Your task to perform on an android device: Clear the shopping cart on walmart.com. Add acer nitro to the cart on walmart.com, then select checkout. Image 0: 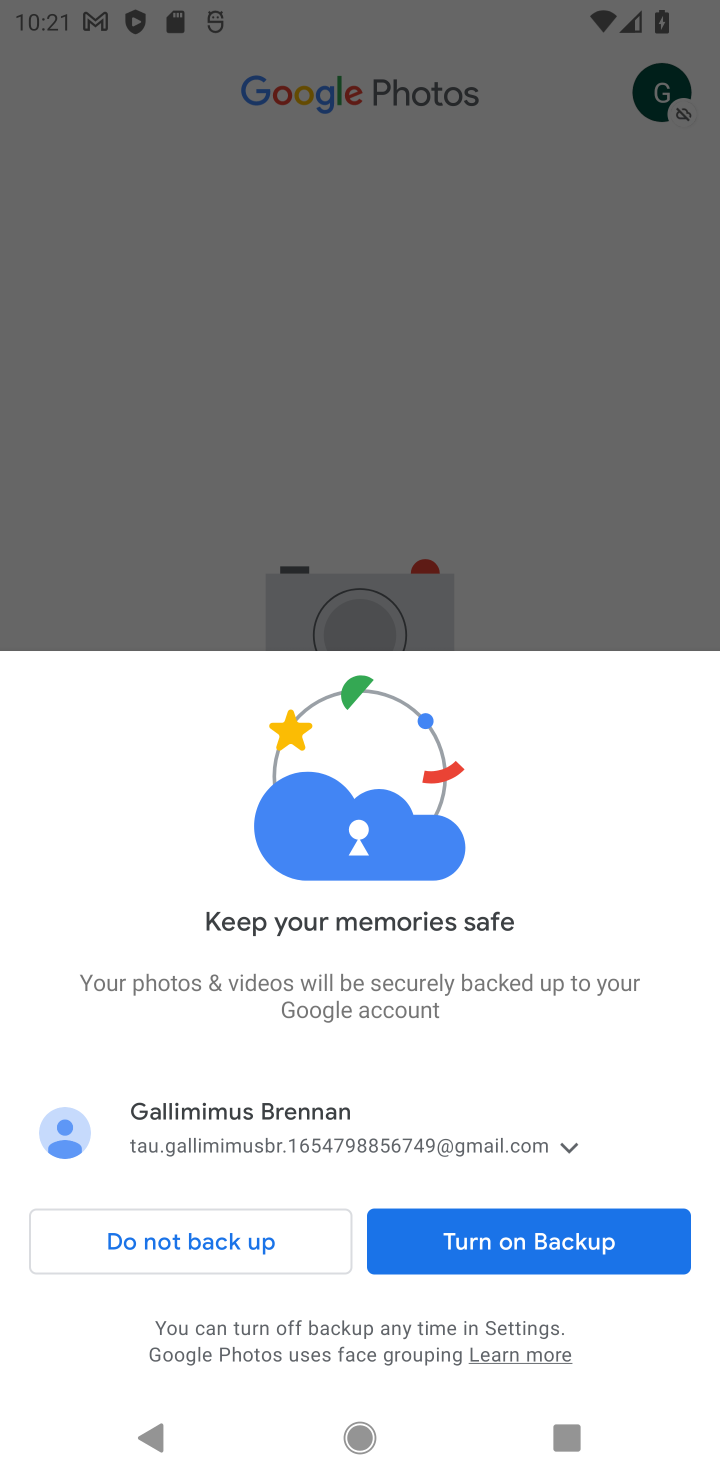
Step 0: press home button
Your task to perform on an android device: Clear the shopping cart on walmart.com. Add acer nitro to the cart on walmart.com, then select checkout. Image 1: 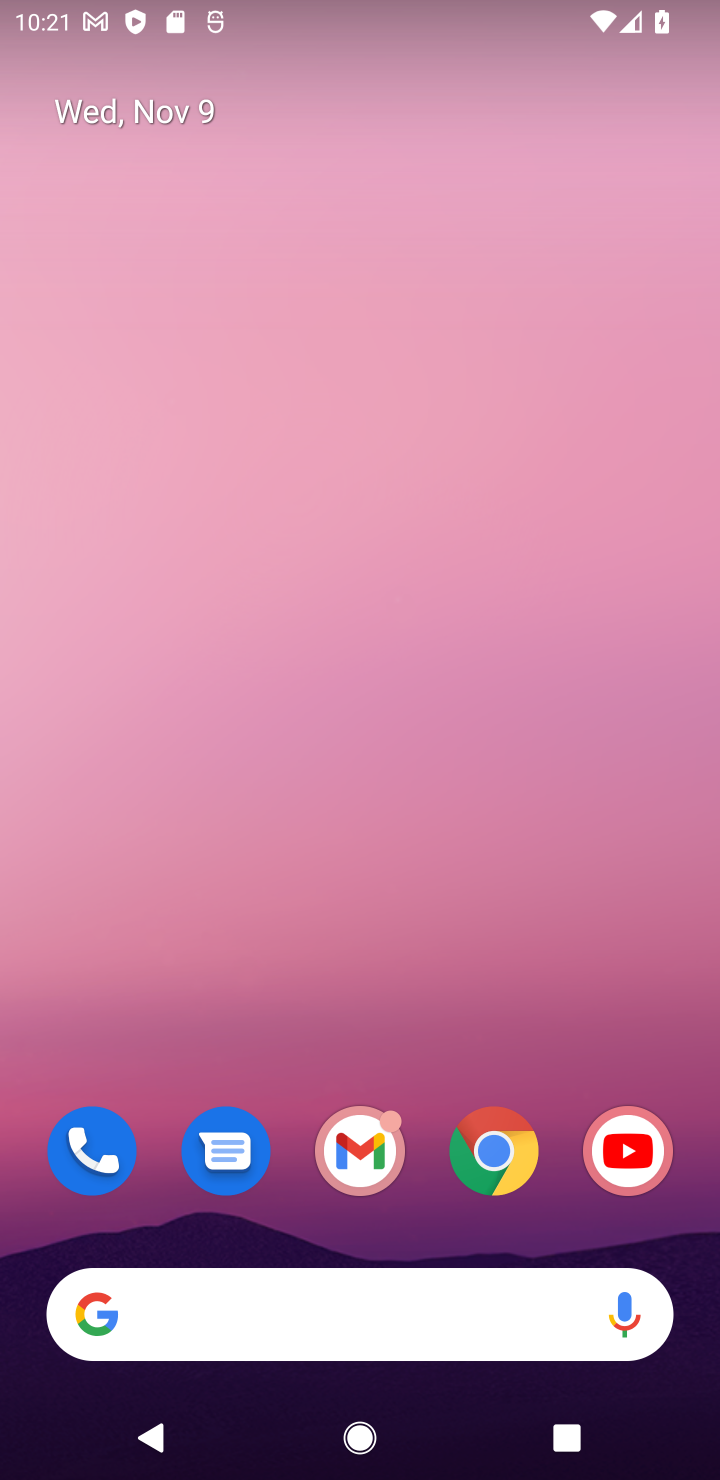
Step 1: click (491, 1150)
Your task to perform on an android device: Clear the shopping cart on walmart.com. Add acer nitro to the cart on walmart.com, then select checkout. Image 2: 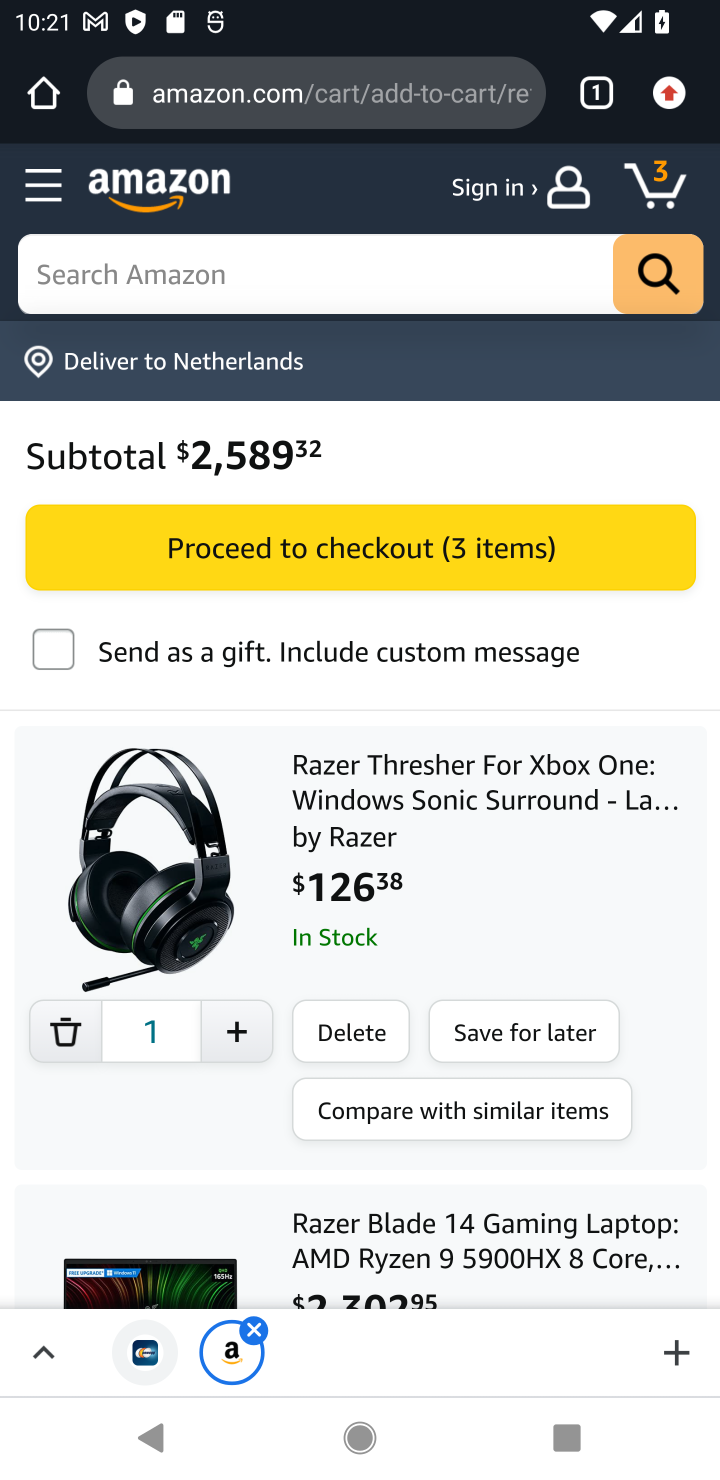
Step 2: click (417, 66)
Your task to perform on an android device: Clear the shopping cart on walmart.com. Add acer nitro to the cart on walmart.com, then select checkout. Image 3: 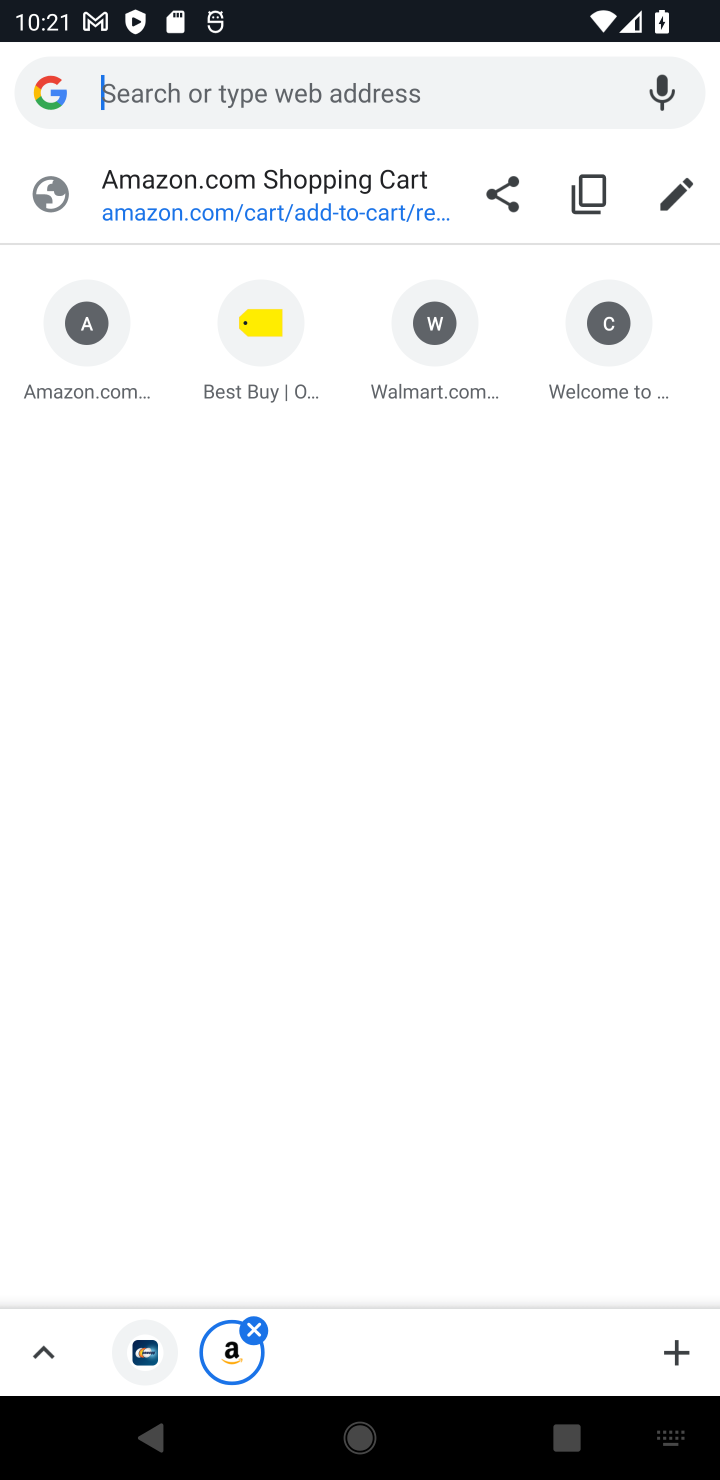
Step 3: click (431, 320)
Your task to perform on an android device: Clear the shopping cart on walmart.com. Add acer nitro to the cart on walmart.com, then select checkout. Image 4: 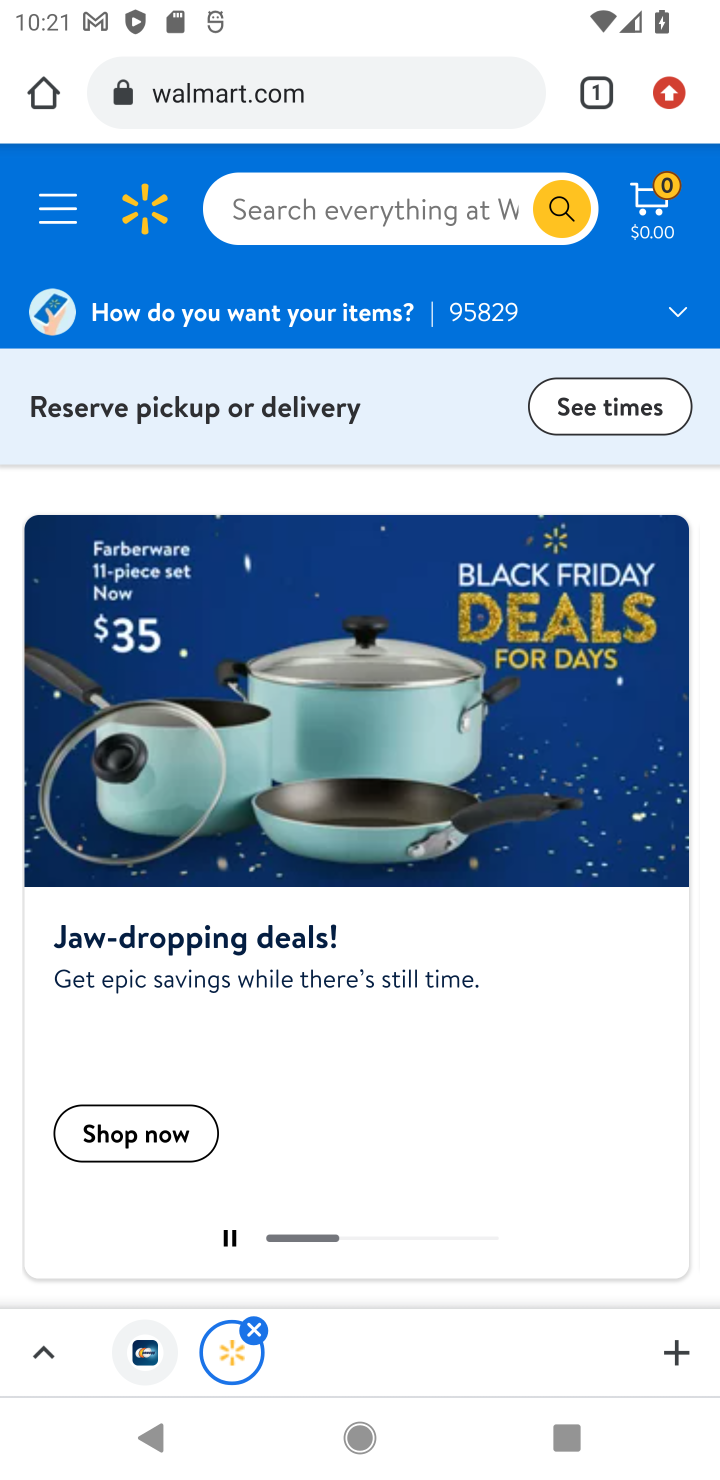
Step 4: click (638, 223)
Your task to perform on an android device: Clear the shopping cart on walmart.com. Add acer nitro to the cart on walmart.com, then select checkout. Image 5: 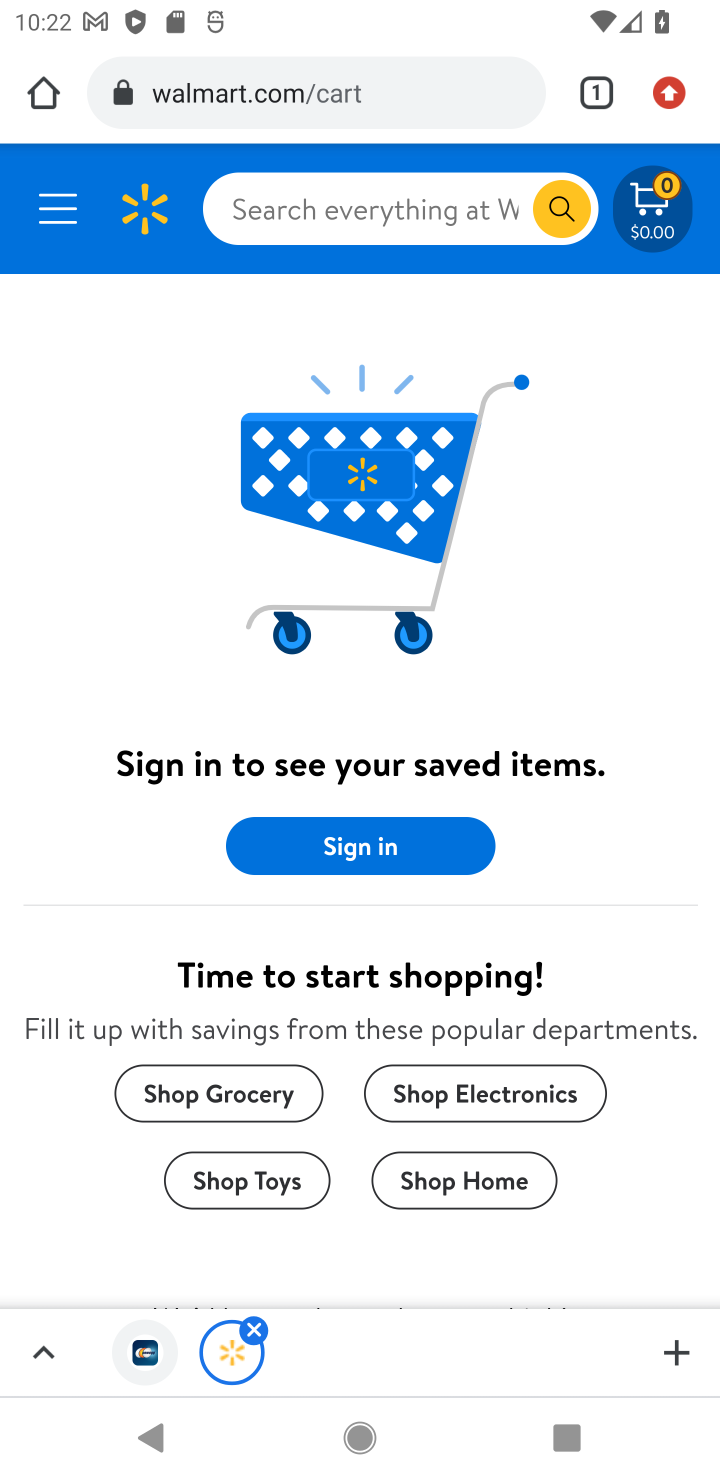
Step 5: click (431, 209)
Your task to perform on an android device: Clear the shopping cart on walmart.com. Add acer nitro to the cart on walmart.com, then select checkout. Image 6: 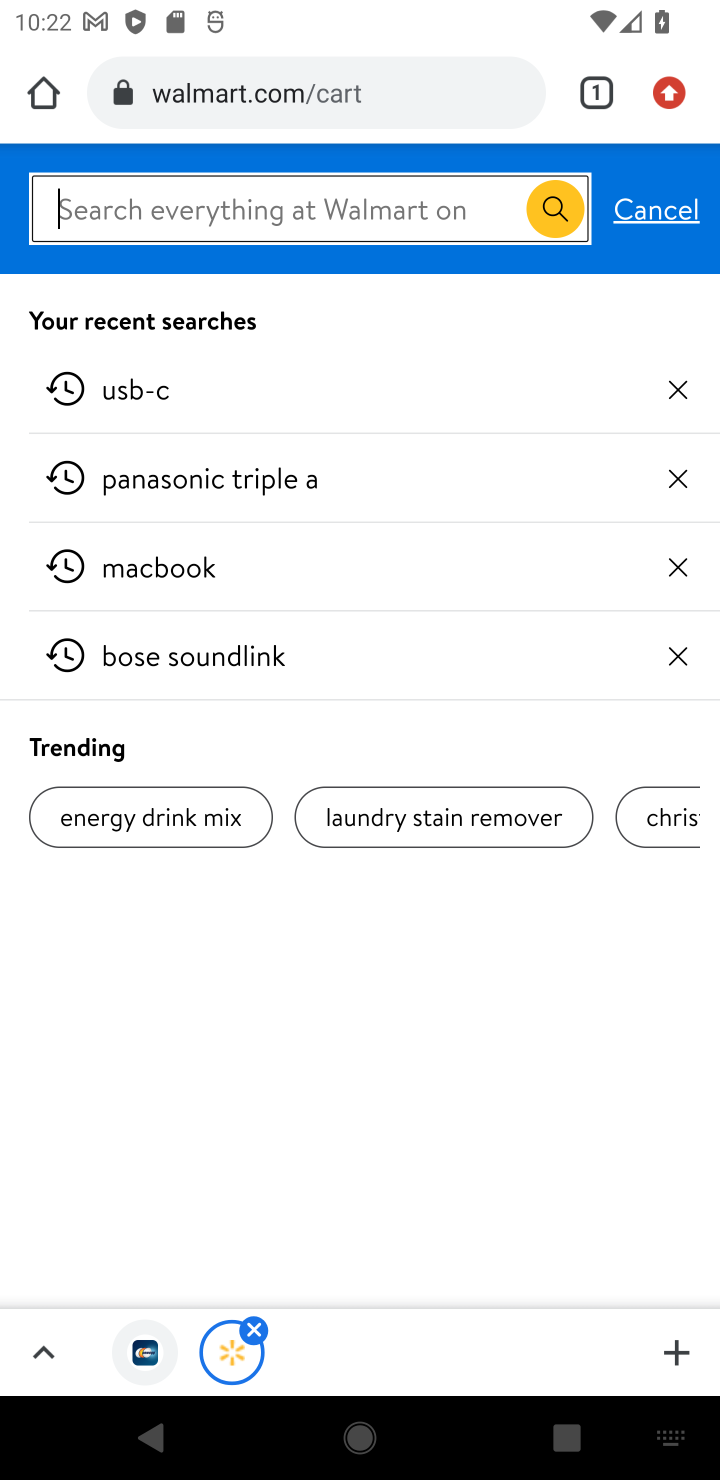
Step 6: type "acer nitro"
Your task to perform on an android device: Clear the shopping cart on walmart.com. Add acer nitro to the cart on walmart.com, then select checkout. Image 7: 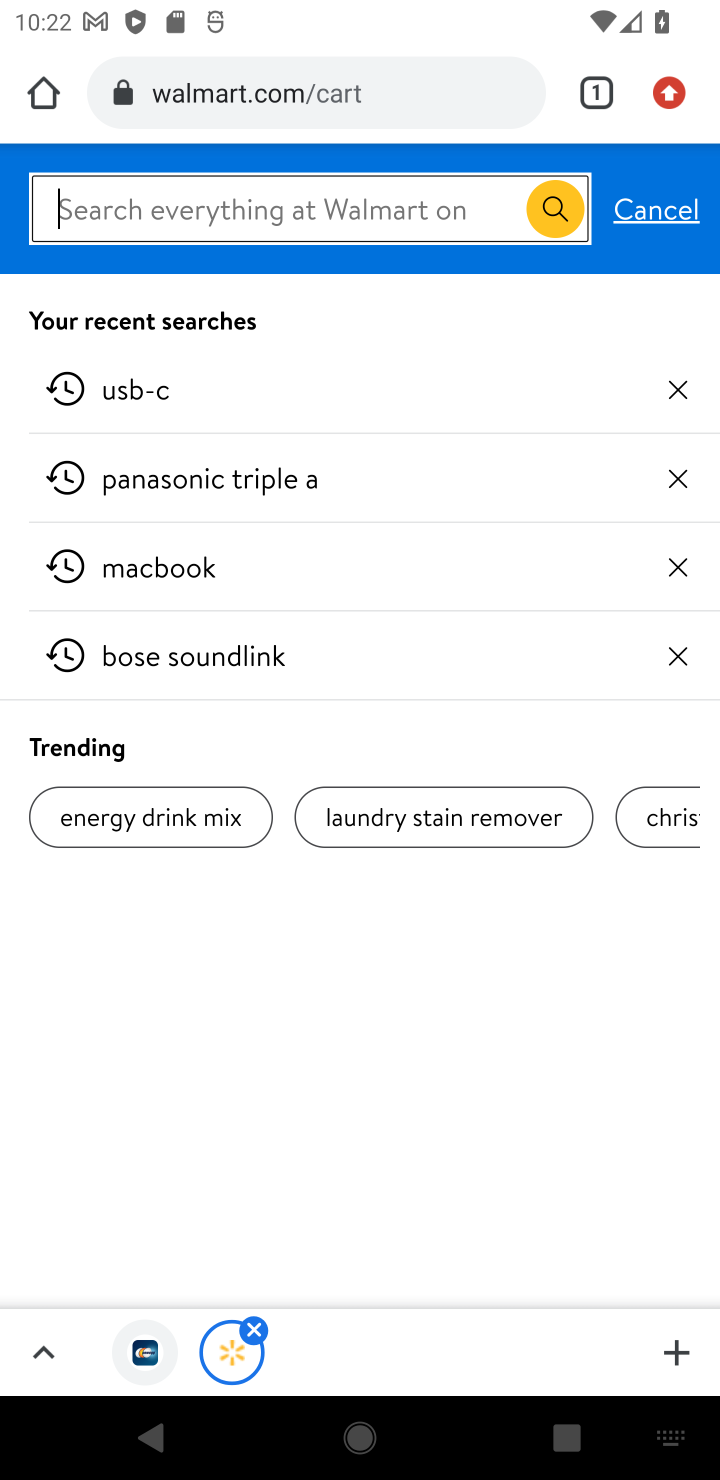
Step 7: press enter
Your task to perform on an android device: Clear the shopping cart on walmart.com. Add acer nitro to the cart on walmart.com, then select checkout. Image 8: 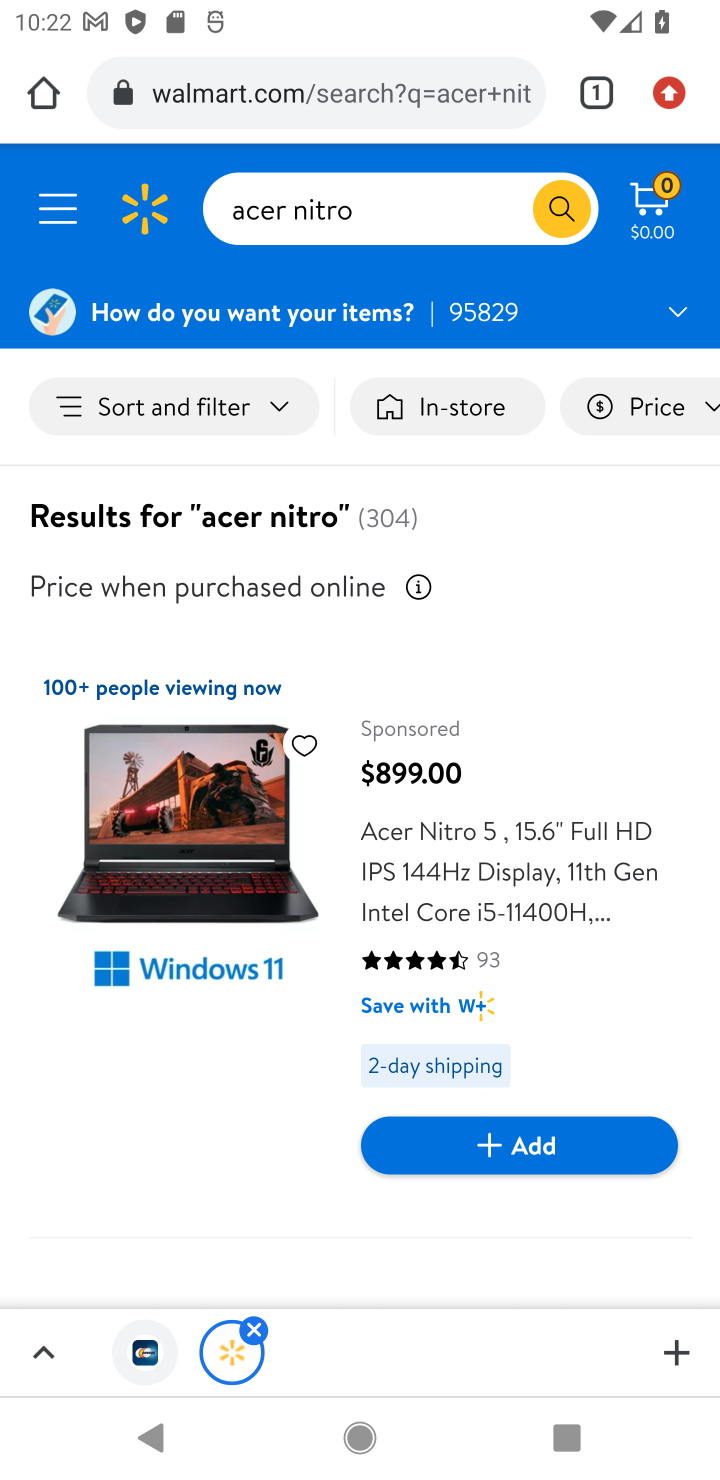
Step 8: click (177, 848)
Your task to perform on an android device: Clear the shopping cart on walmart.com. Add acer nitro to the cart on walmart.com, then select checkout. Image 9: 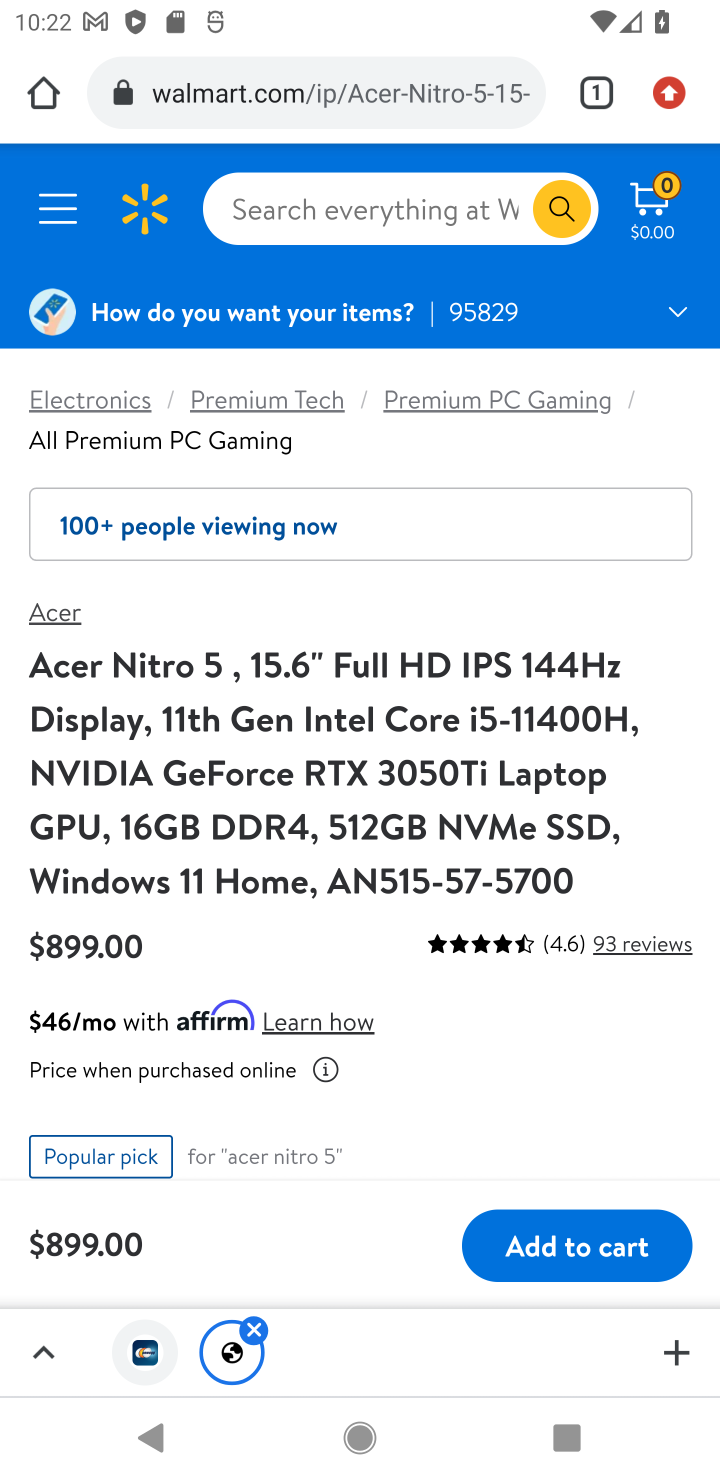
Step 9: click (585, 1247)
Your task to perform on an android device: Clear the shopping cart on walmart.com. Add acer nitro to the cart on walmart.com, then select checkout. Image 10: 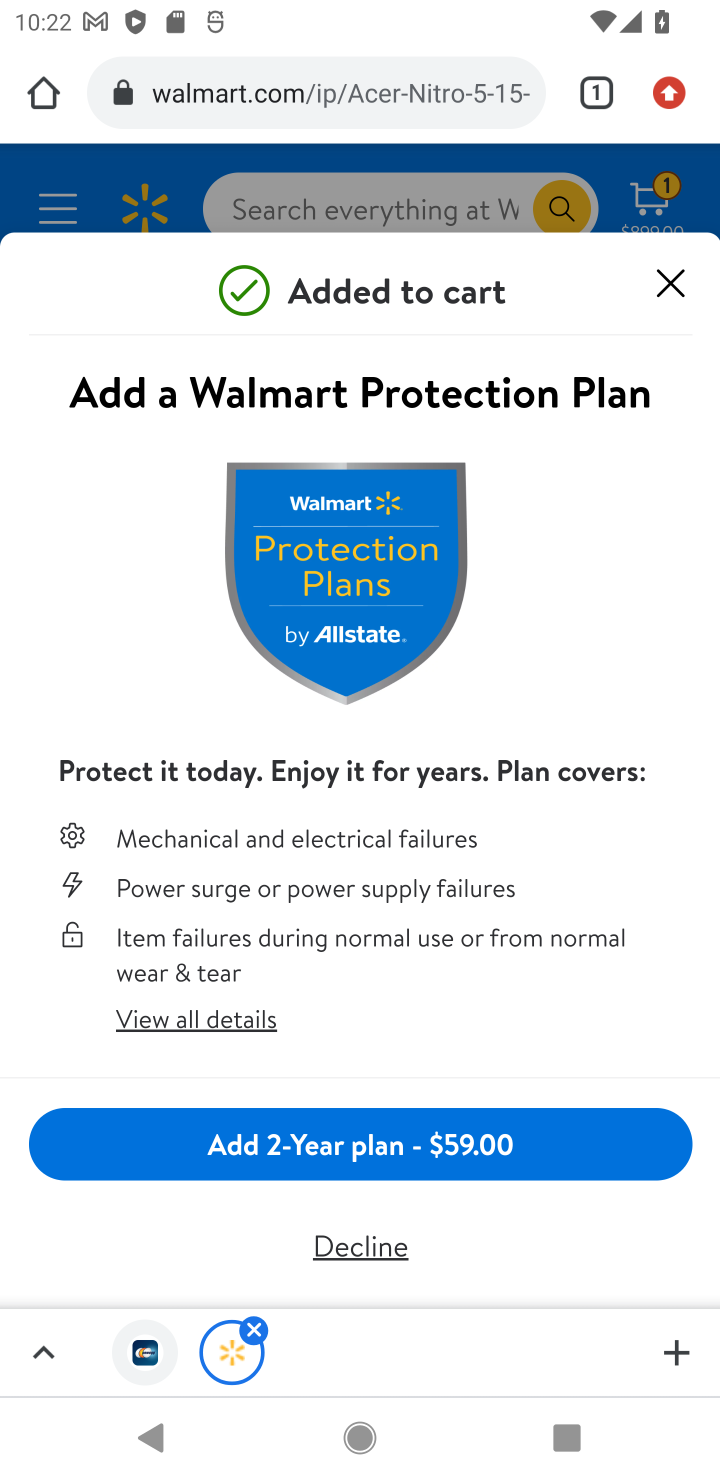
Step 10: click (676, 280)
Your task to perform on an android device: Clear the shopping cart on walmart.com. Add acer nitro to the cart on walmart.com, then select checkout. Image 11: 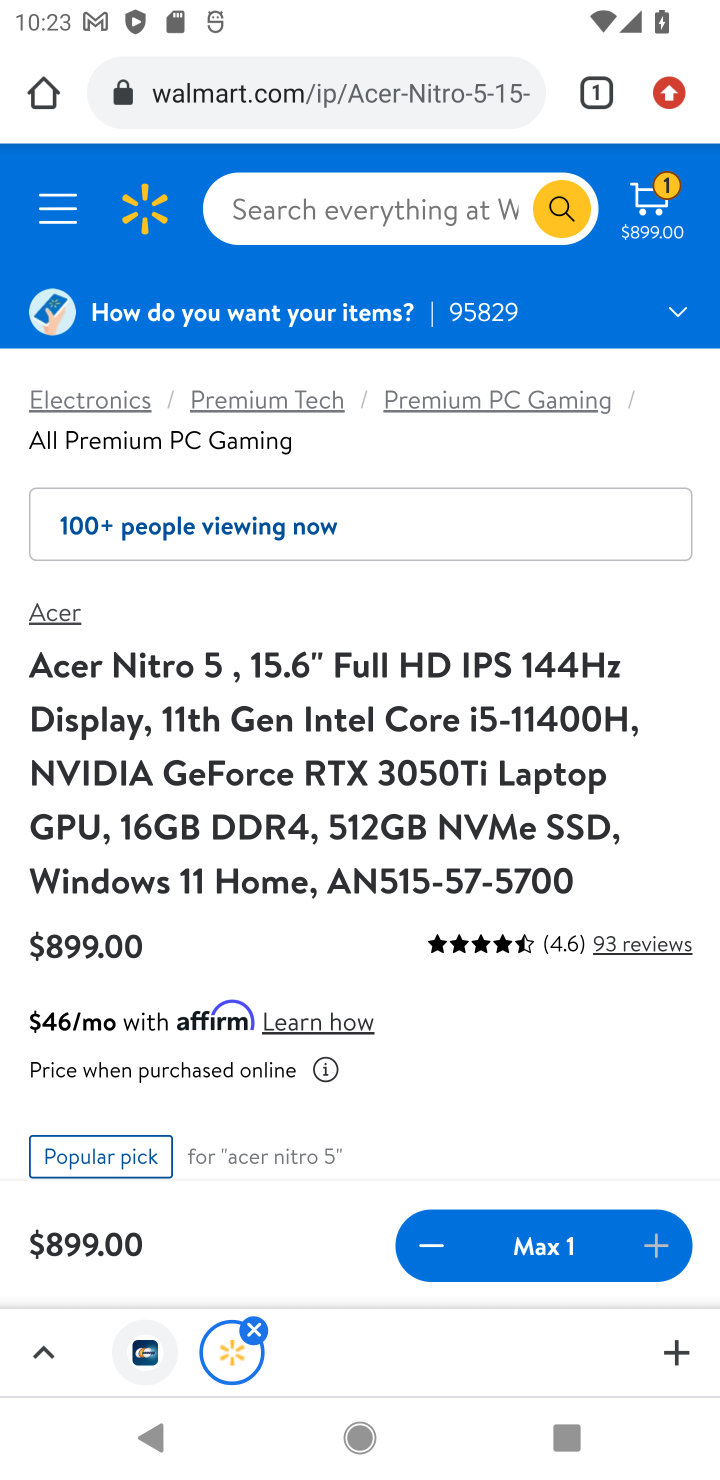
Step 11: click (664, 218)
Your task to perform on an android device: Clear the shopping cart on walmart.com. Add acer nitro to the cart on walmart.com, then select checkout. Image 12: 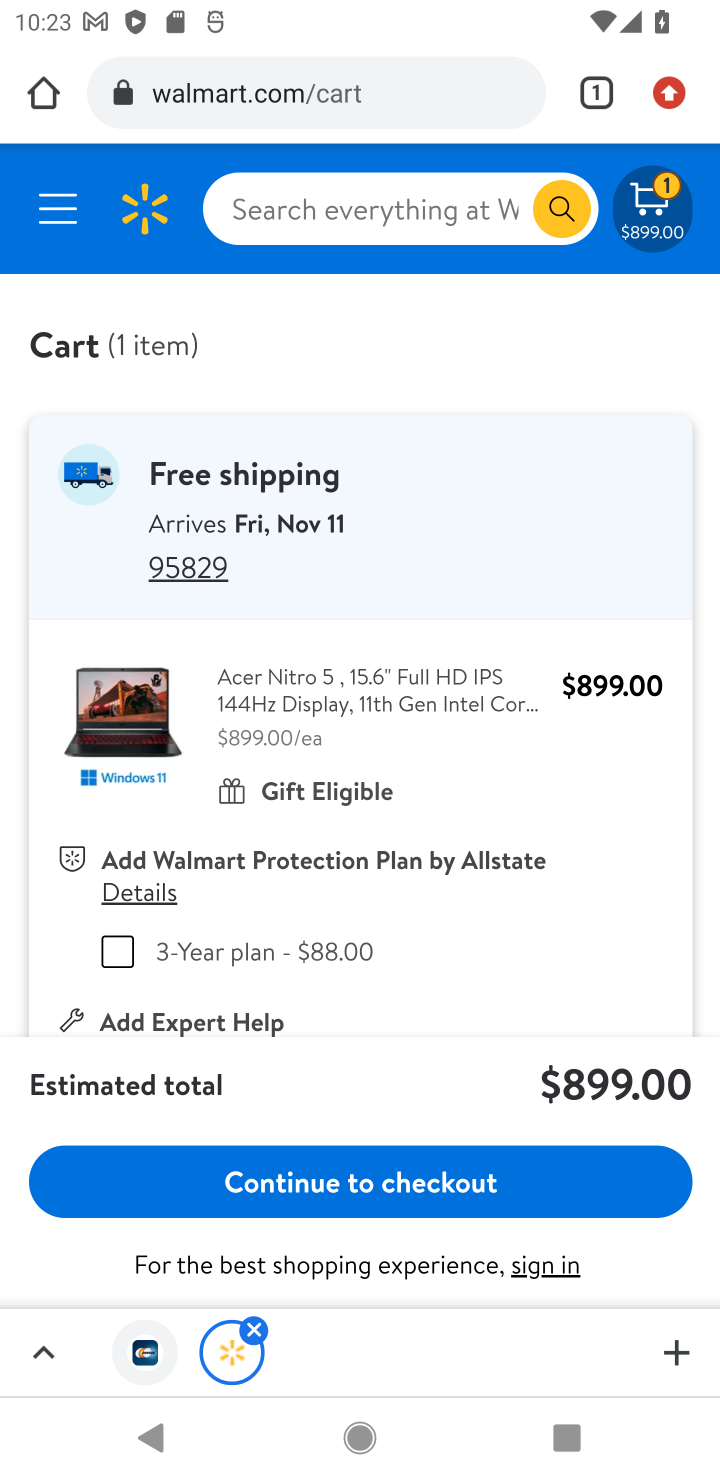
Step 12: click (470, 1175)
Your task to perform on an android device: Clear the shopping cart on walmart.com. Add acer nitro to the cart on walmart.com, then select checkout. Image 13: 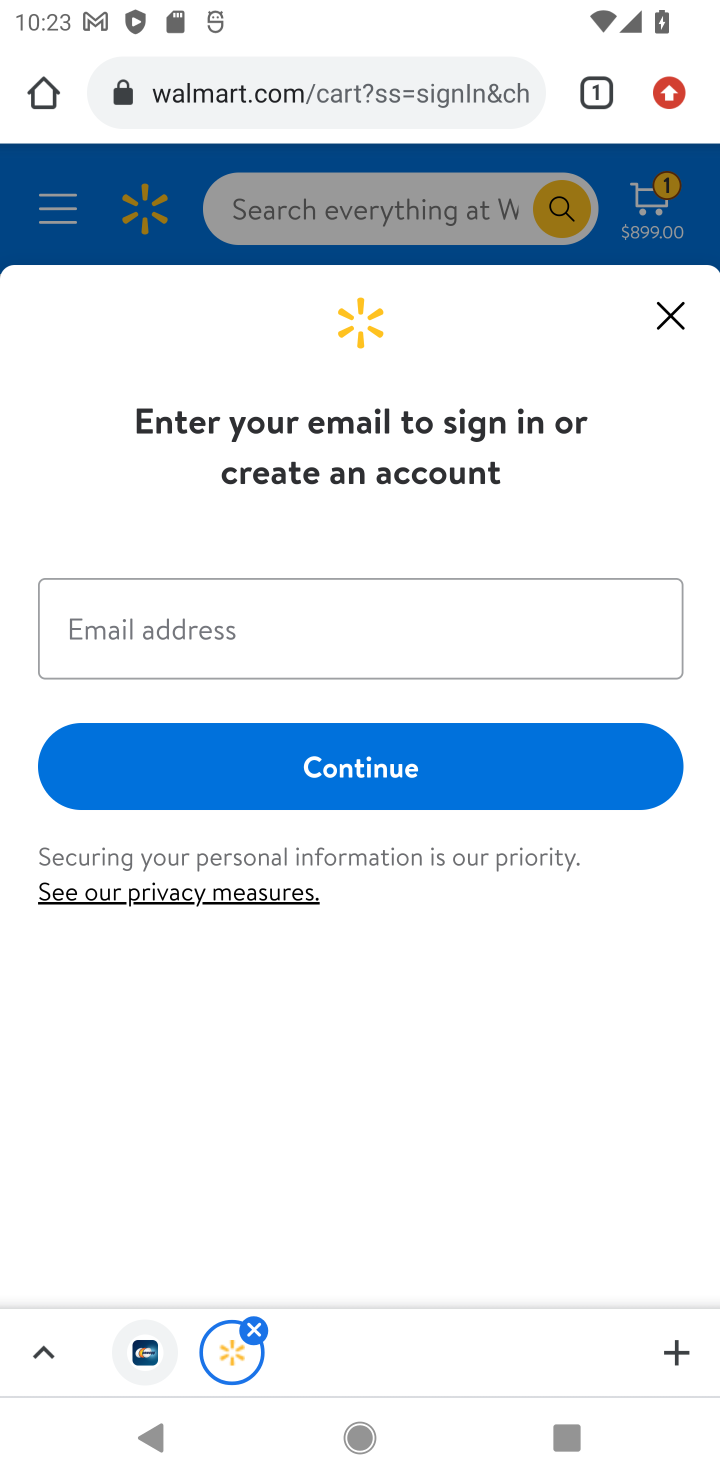
Step 13: task complete